Your task to perform on an android device: delete the emails in spam in the gmail app Image 0: 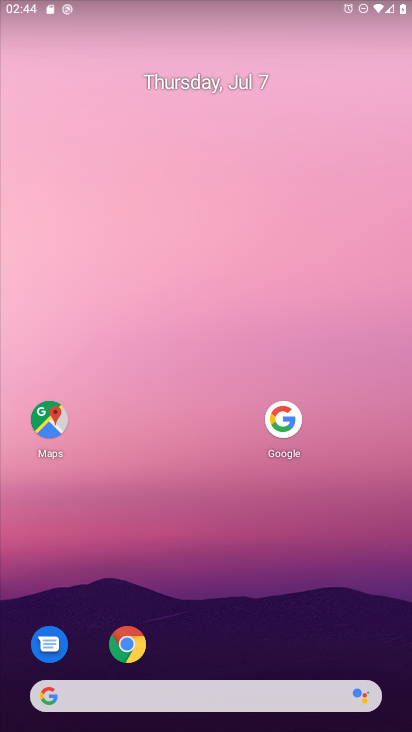
Step 0: drag from (152, 685) to (325, 47)
Your task to perform on an android device: delete the emails in spam in the gmail app Image 1: 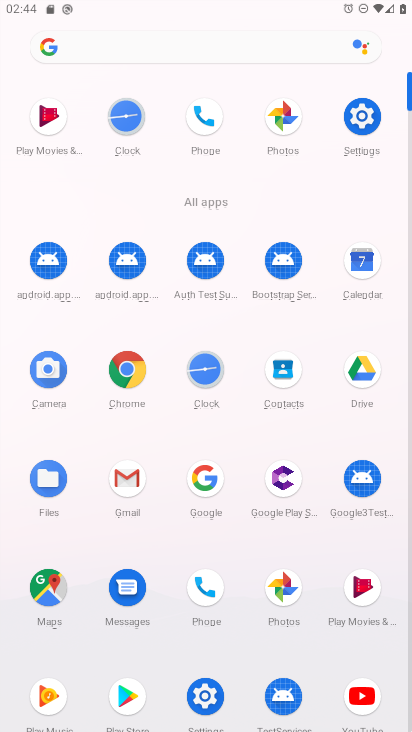
Step 1: click (124, 482)
Your task to perform on an android device: delete the emails in spam in the gmail app Image 2: 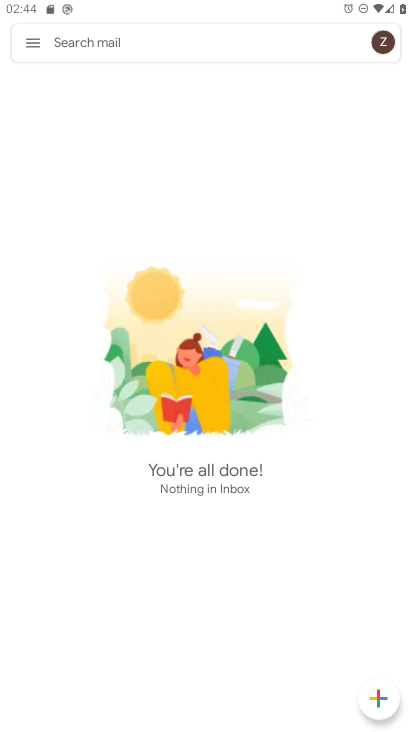
Step 2: click (34, 39)
Your task to perform on an android device: delete the emails in spam in the gmail app Image 3: 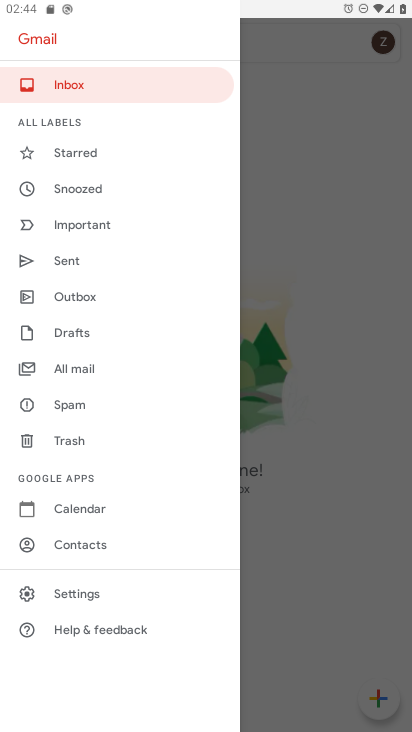
Step 3: click (86, 411)
Your task to perform on an android device: delete the emails in spam in the gmail app Image 4: 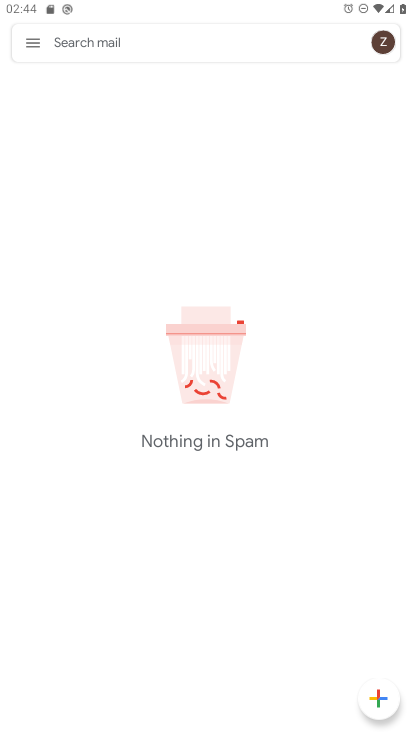
Step 4: task complete